Your task to perform on an android device: turn off wifi Image 0: 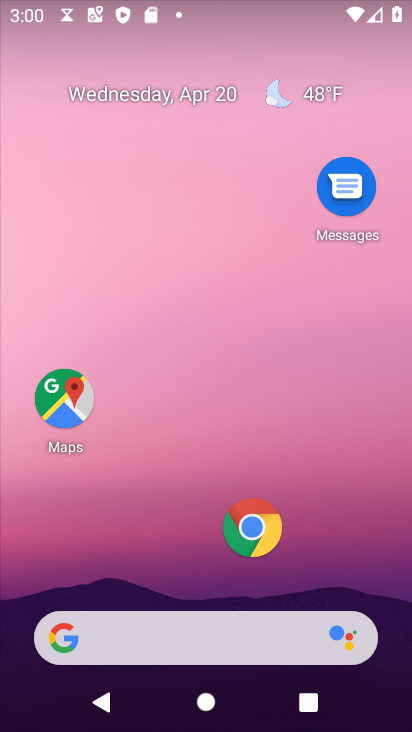
Step 0: drag from (168, 636) to (291, 9)
Your task to perform on an android device: turn off wifi Image 1: 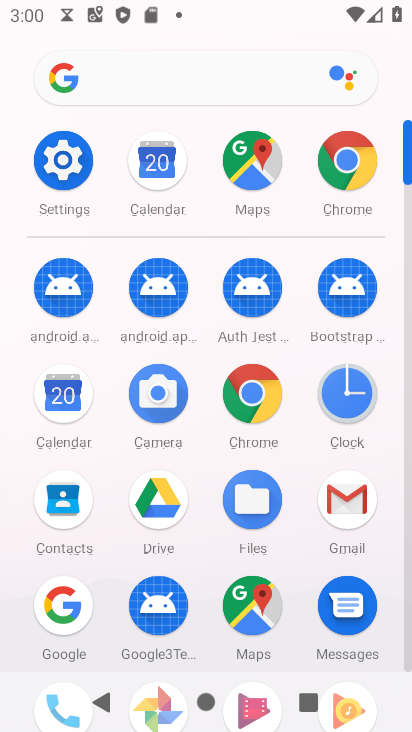
Step 1: click (60, 166)
Your task to perform on an android device: turn off wifi Image 2: 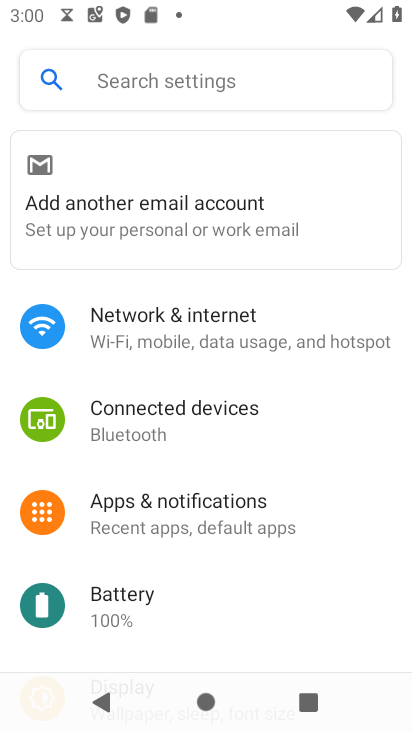
Step 2: click (168, 318)
Your task to perform on an android device: turn off wifi Image 3: 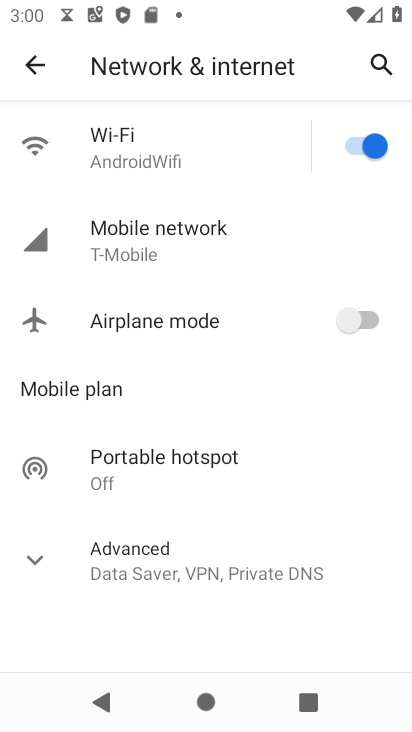
Step 3: click (121, 151)
Your task to perform on an android device: turn off wifi Image 4: 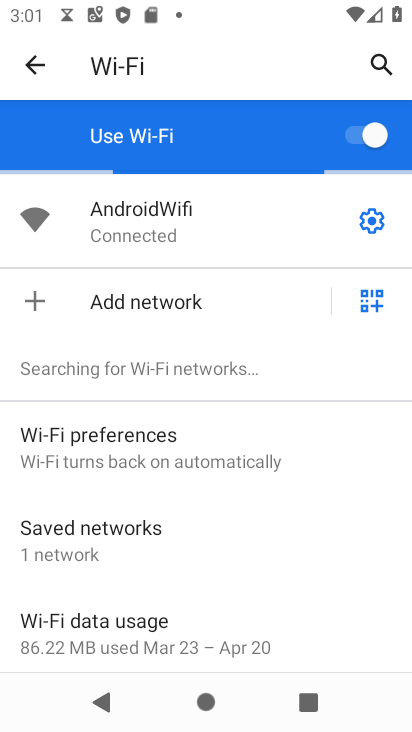
Step 4: drag from (271, 213) to (254, 517)
Your task to perform on an android device: turn off wifi Image 5: 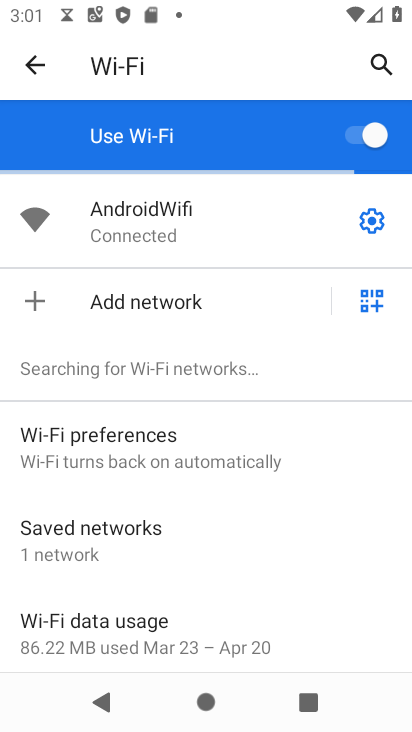
Step 5: click (356, 142)
Your task to perform on an android device: turn off wifi Image 6: 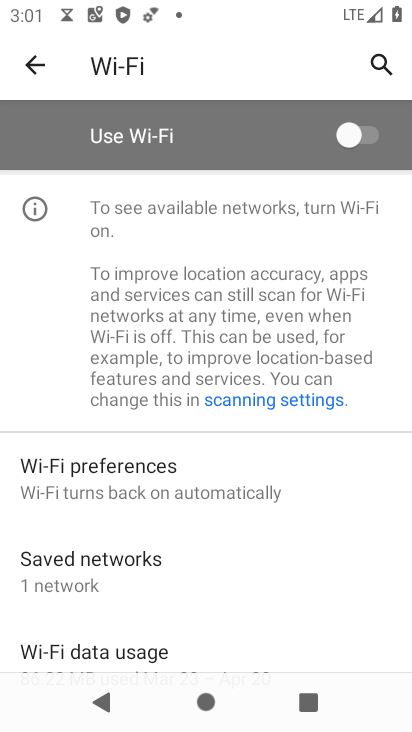
Step 6: task complete